Your task to perform on an android device: Go to Google maps Image 0: 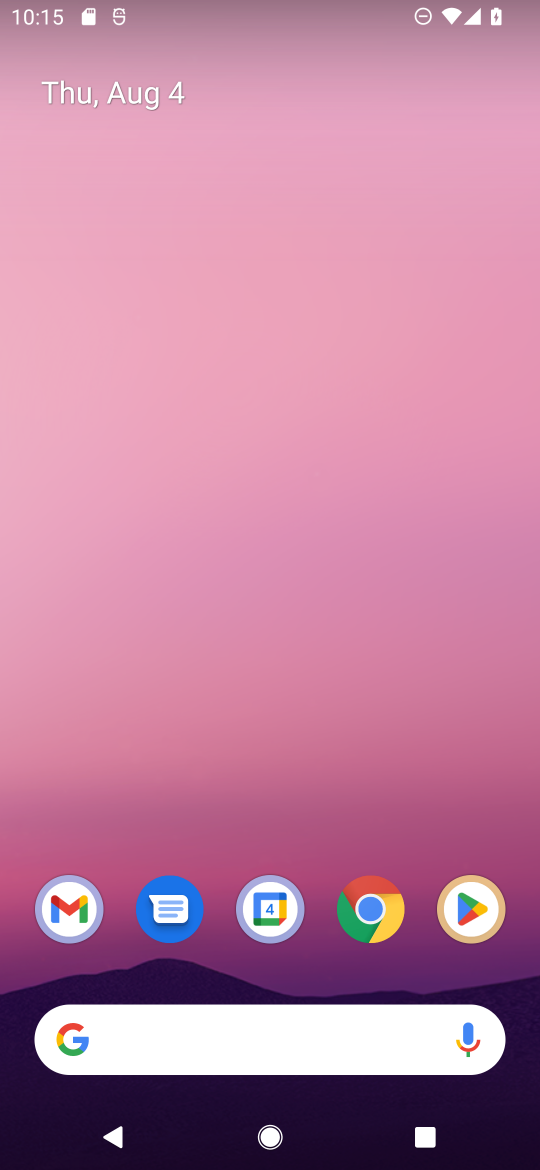
Step 0: drag from (313, 880) to (302, 92)
Your task to perform on an android device: Go to Google maps Image 1: 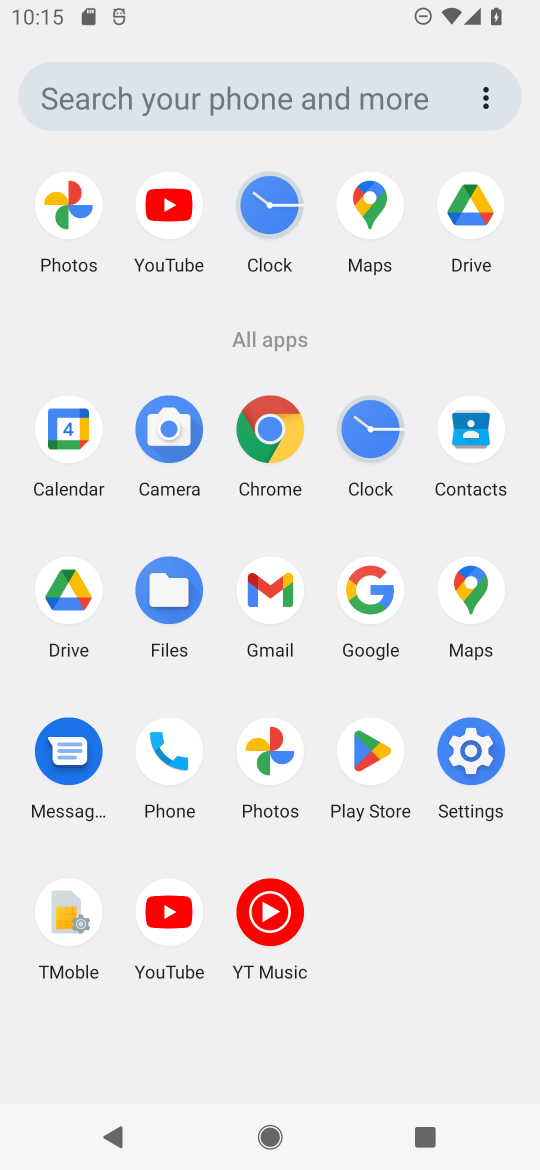
Step 1: click (368, 204)
Your task to perform on an android device: Go to Google maps Image 2: 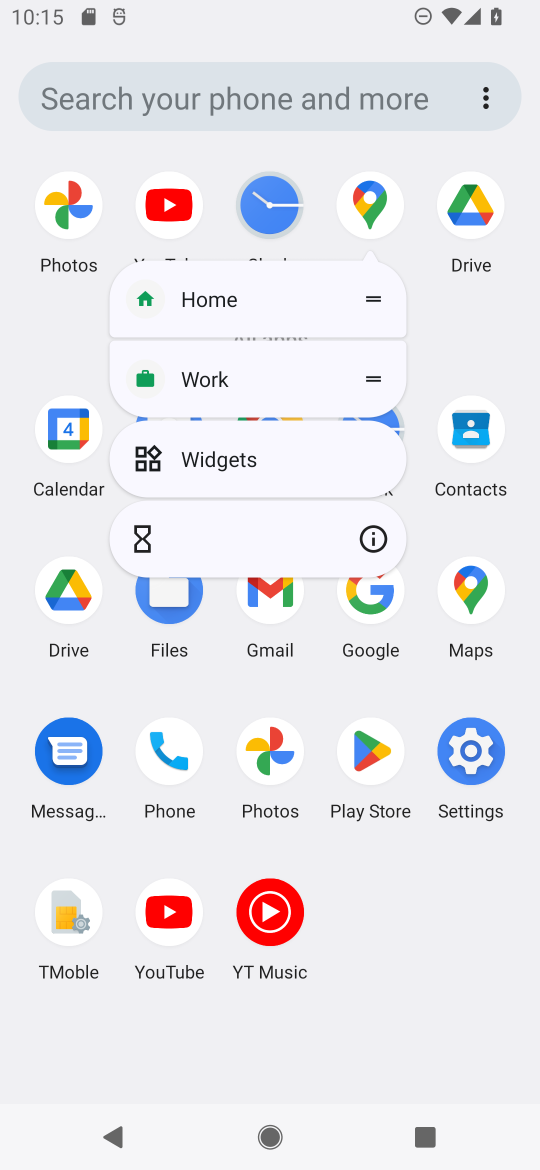
Step 2: click (377, 202)
Your task to perform on an android device: Go to Google maps Image 3: 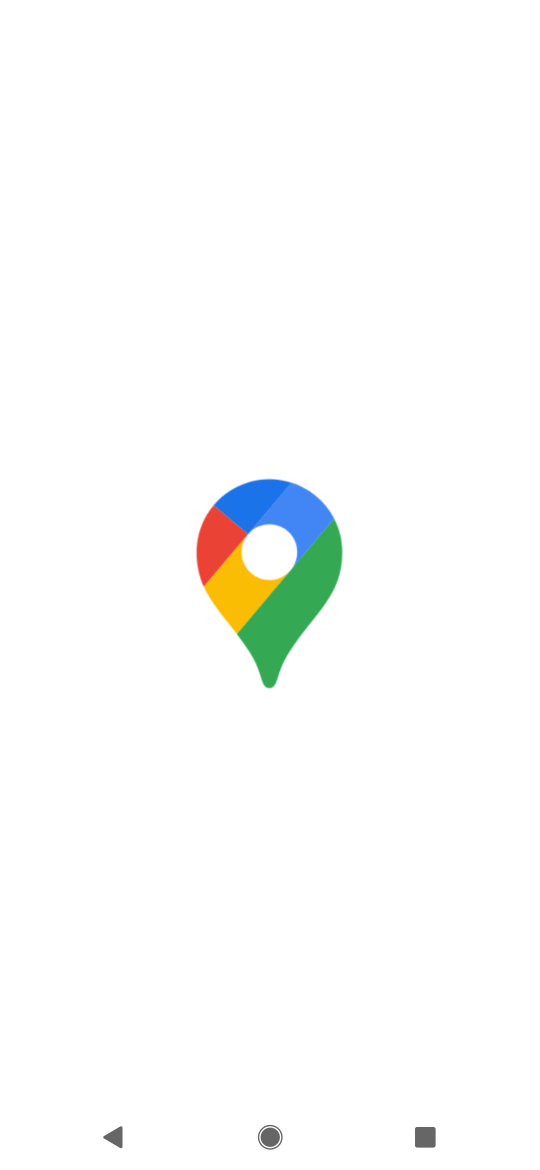
Step 3: task complete